Your task to perform on an android device: change the clock style Image 0: 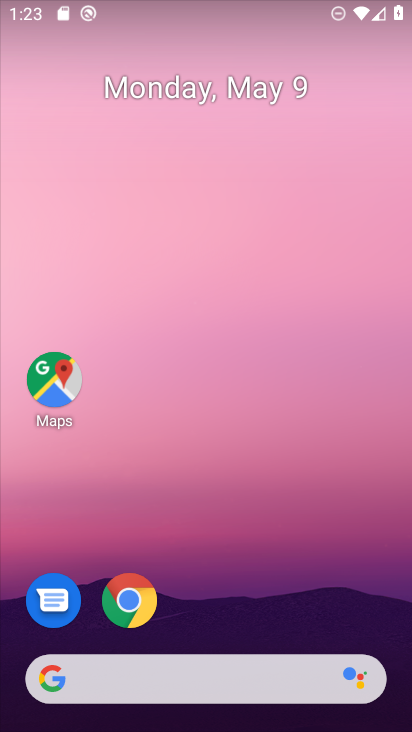
Step 0: drag from (211, 626) to (305, 34)
Your task to perform on an android device: change the clock style Image 1: 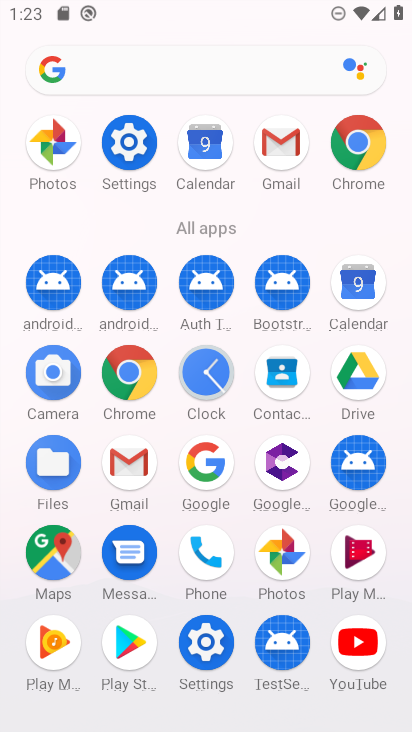
Step 1: click (206, 374)
Your task to perform on an android device: change the clock style Image 2: 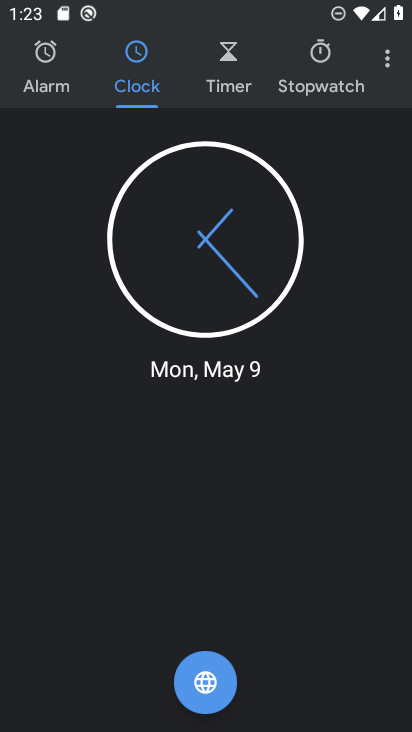
Step 2: click (395, 55)
Your task to perform on an android device: change the clock style Image 3: 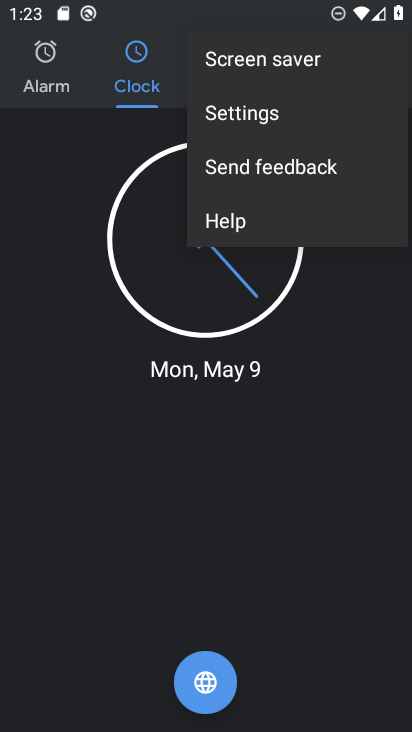
Step 3: click (268, 118)
Your task to perform on an android device: change the clock style Image 4: 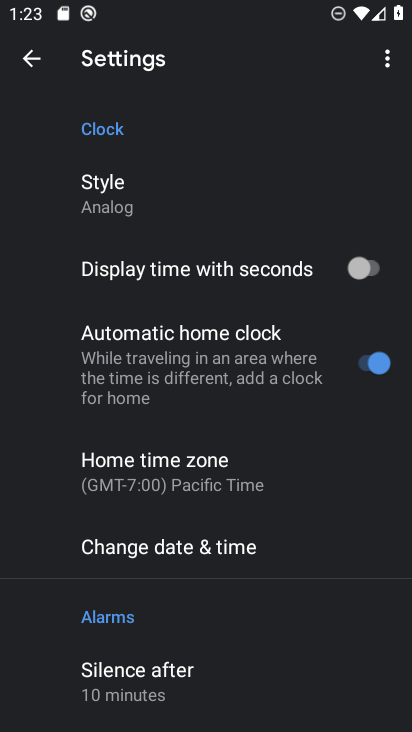
Step 4: click (98, 200)
Your task to perform on an android device: change the clock style Image 5: 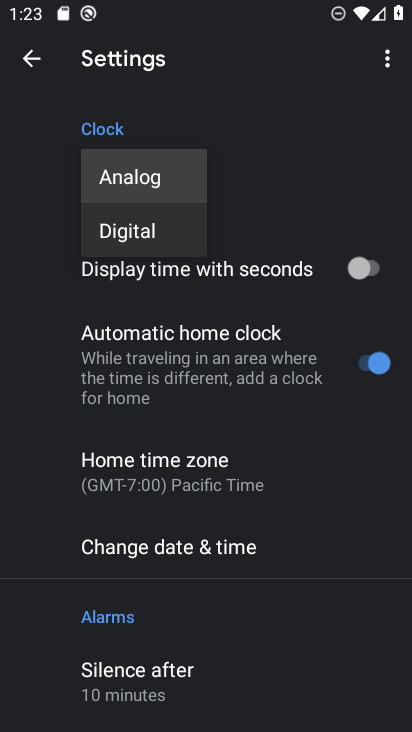
Step 5: click (135, 235)
Your task to perform on an android device: change the clock style Image 6: 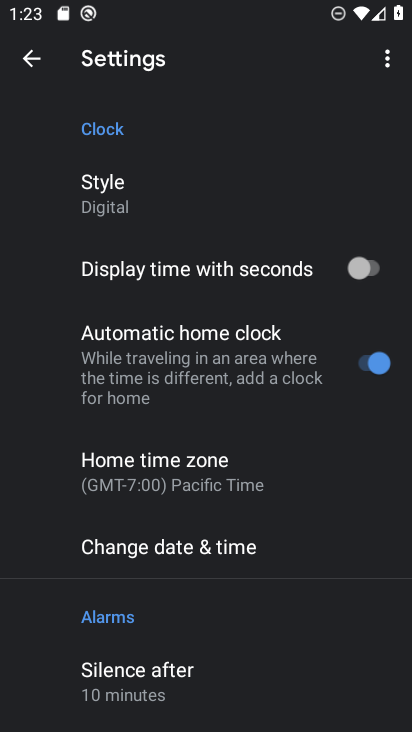
Step 6: task complete